Your task to perform on an android device: Open display settings Image 0: 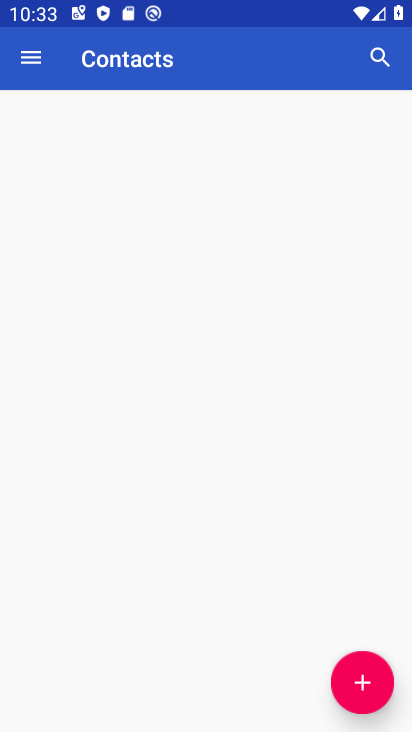
Step 0: press home button
Your task to perform on an android device: Open display settings Image 1: 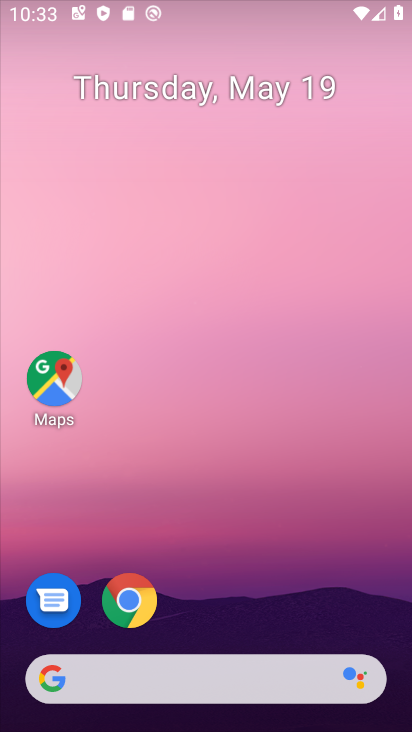
Step 1: drag from (242, 620) to (209, 54)
Your task to perform on an android device: Open display settings Image 2: 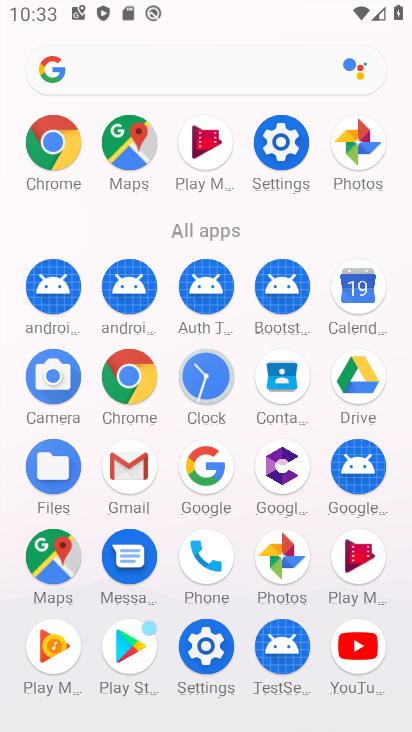
Step 2: click (212, 654)
Your task to perform on an android device: Open display settings Image 3: 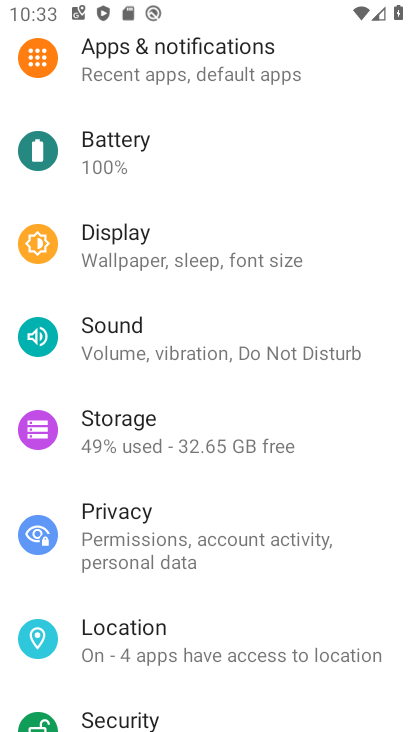
Step 3: click (137, 232)
Your task to perform on an android device: Open display settings Image 4: 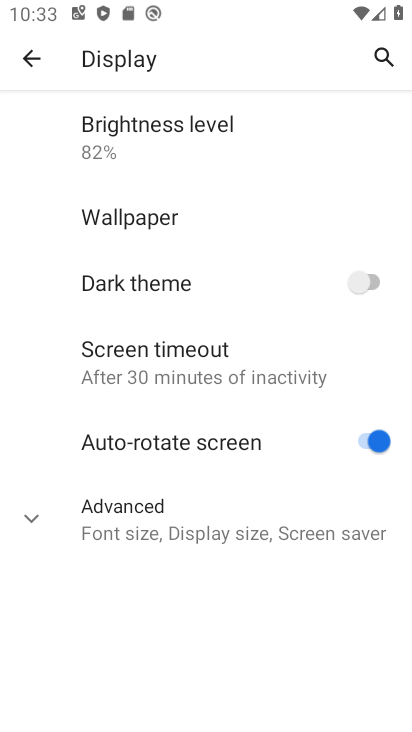
Step 4: task complete